Your task to perform on an android device: open app "Yahoo Mail" (install if not already installed), go to login, and select forgot password Image 0: 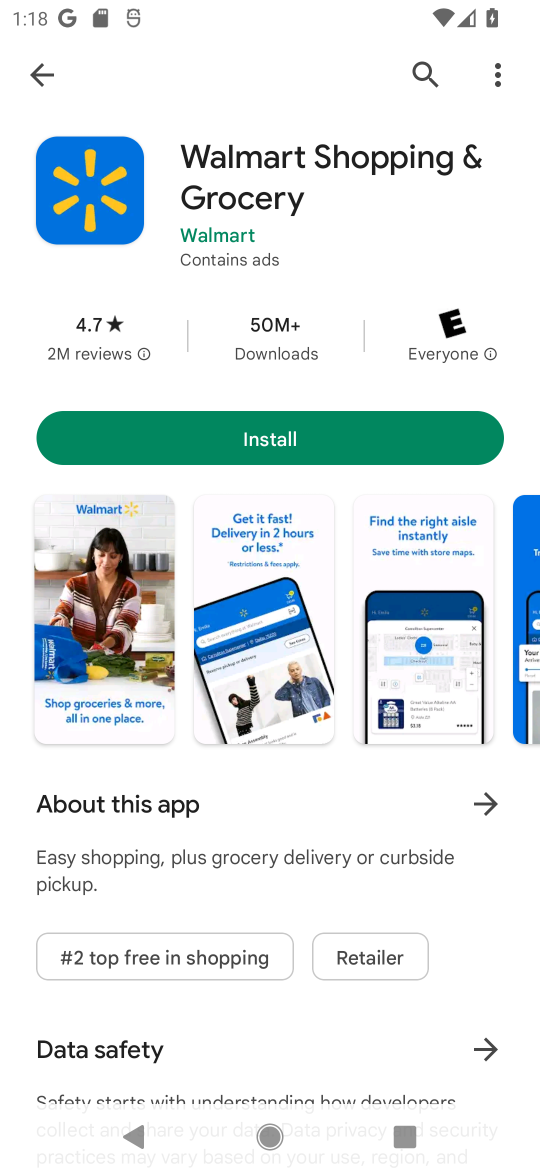
Step 0: press home button
Your task to perform on an android device: open app "Yahoo Mail" (install if not already installed), go to login, and select forgot password Image 1: 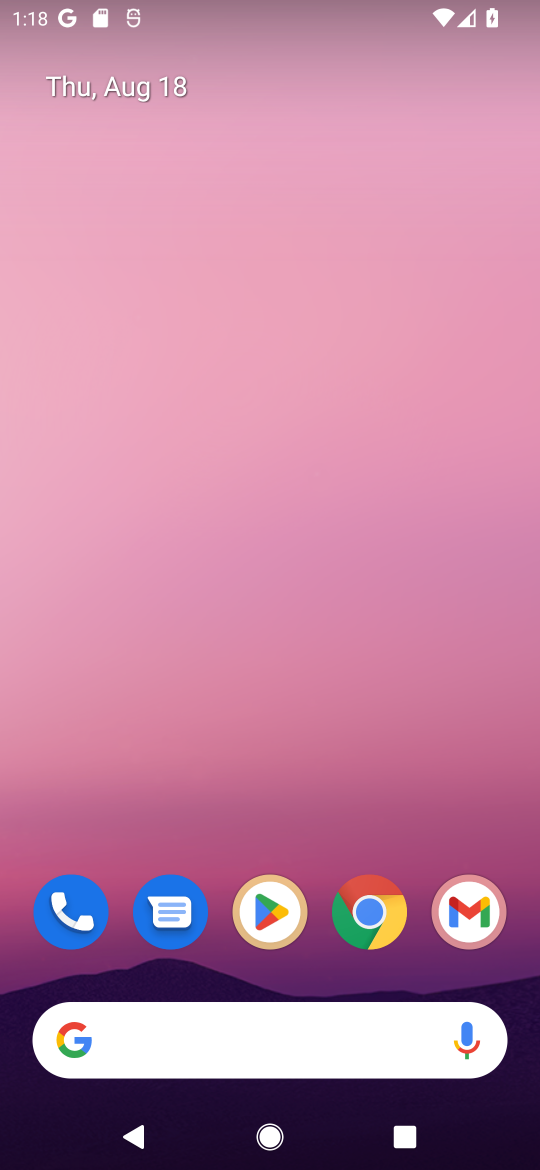
Step 1: click (274, 917)
Your task to perform on an android device: open app "Yahoo Mail" (install if not already installed), go to login, and select forgot password Image 2: 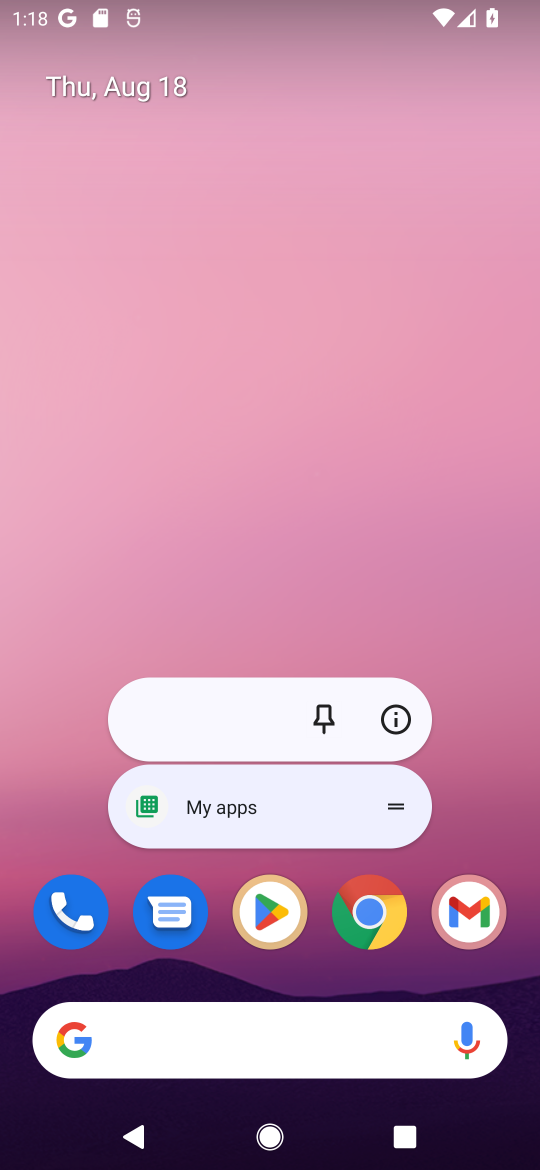
Step 2: click (271, 918)
Your task to perform on an android device: open app "Yahoo Mail" (install if not already installed), go to login, and select forgot password Image 3: 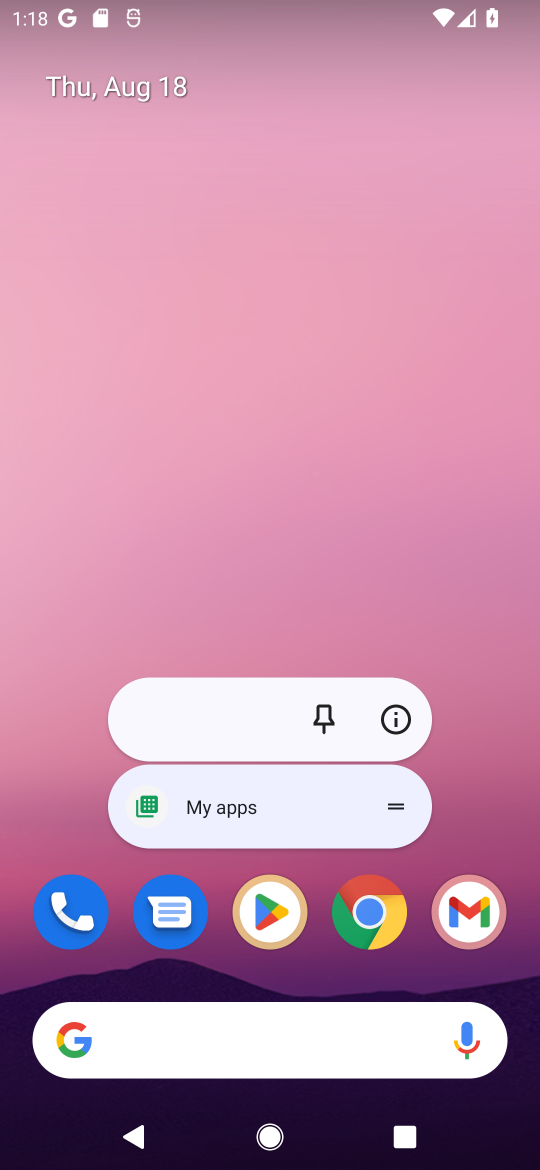
Step 3: click (265, 899)
Your task to perform on an android device: open app "Yahoo Mail" (install if not already installed), go to login, and select forgot password Image 4: 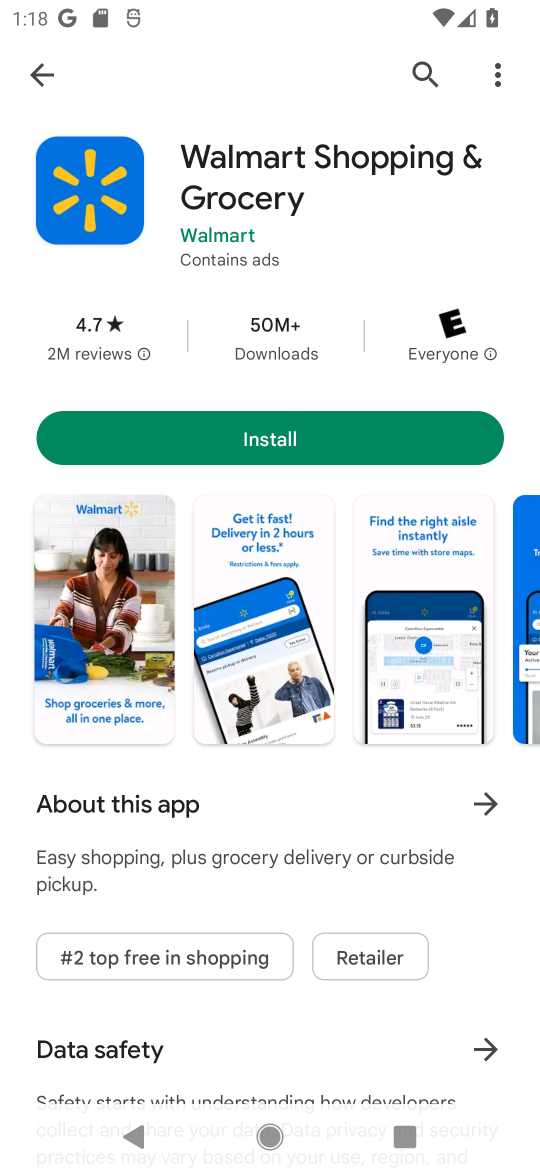
Step 4: click (417, 77)
Your task to perform on an android device: open app "Yahoo Mail" (install if not already installed), go to login, and select forgot password Image 5: 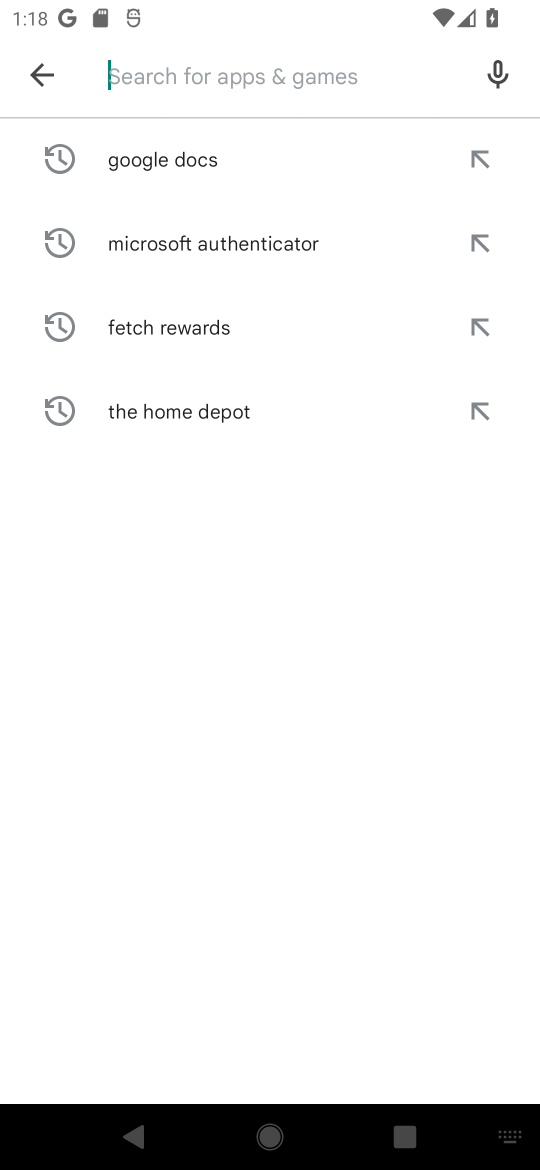
Step 5: click (234, 56)
Your task to perform on an android device: open app "Yahoo Mail" (install if not already installed), go to login, and select forgot password Image 6: 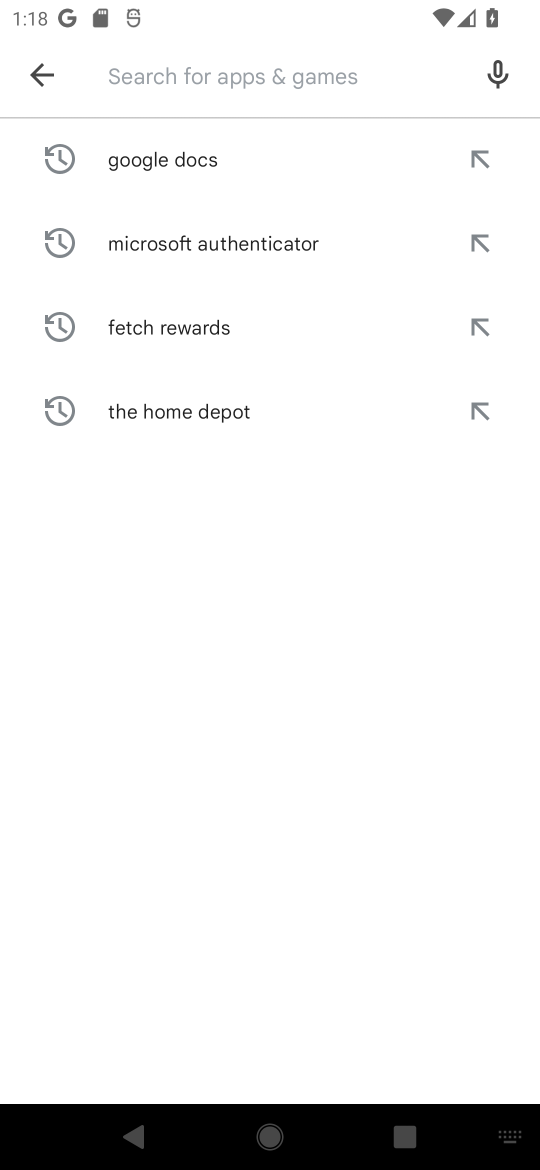
Step 6: click (220, 78)
Your task to perform on an android device: open app "Yahoo Mail" (install if not already installed), go to login, and select forgot password Image 7: 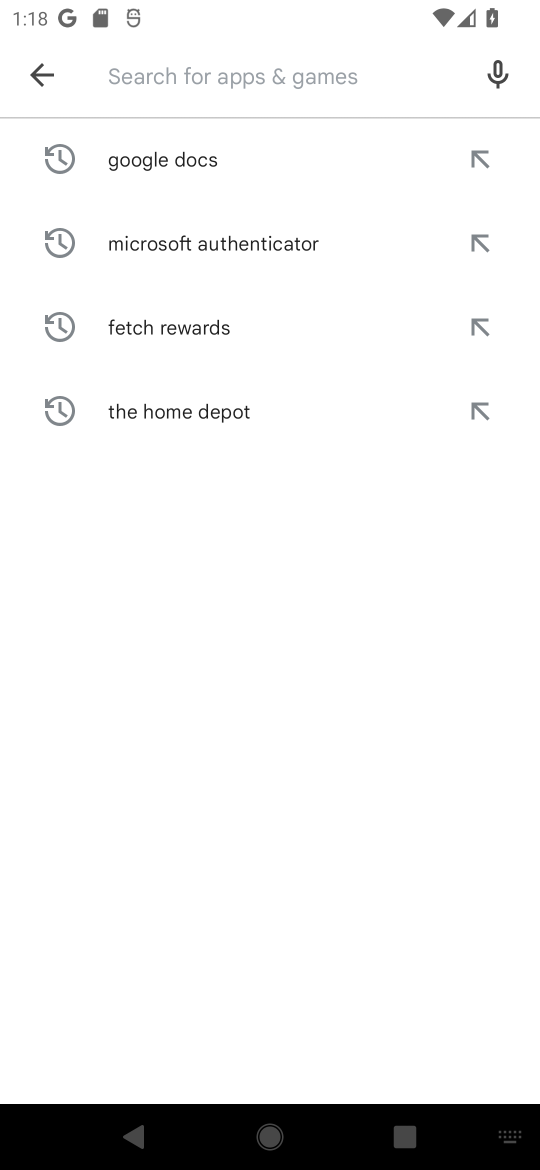
Step 7: type "Yahoo Mail"
Your task to perform on an android device: open app "Yahoo Mail" (install if not already installed), go to login, and select forgot password Image 8: 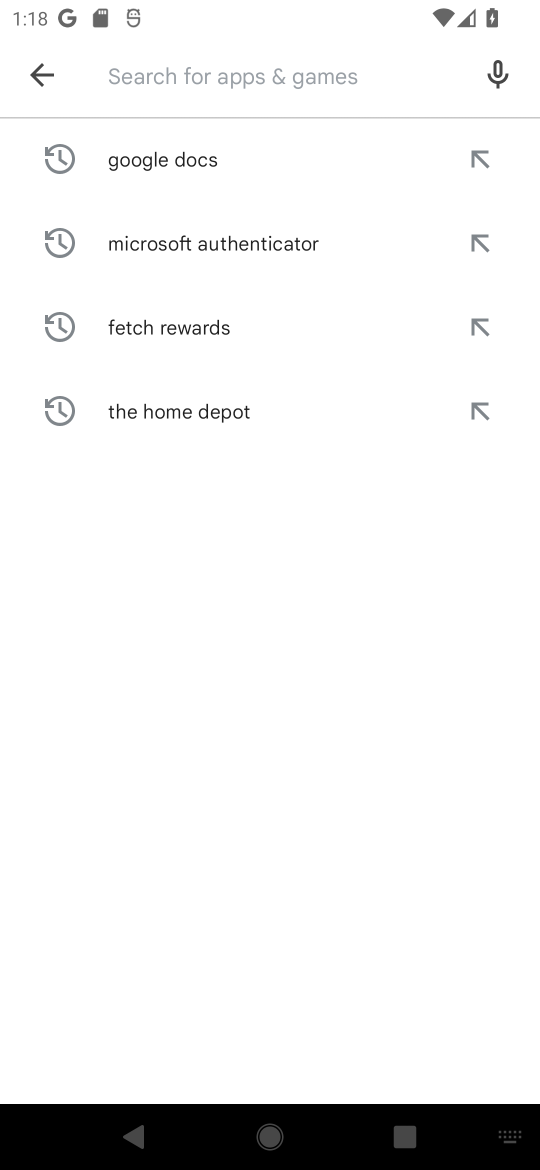
Step 8: click (277, 672)
Your task to perform on an android device: open app "Yahoo Mail" (install if not already installed), go to login, and select forgot password Image 9: 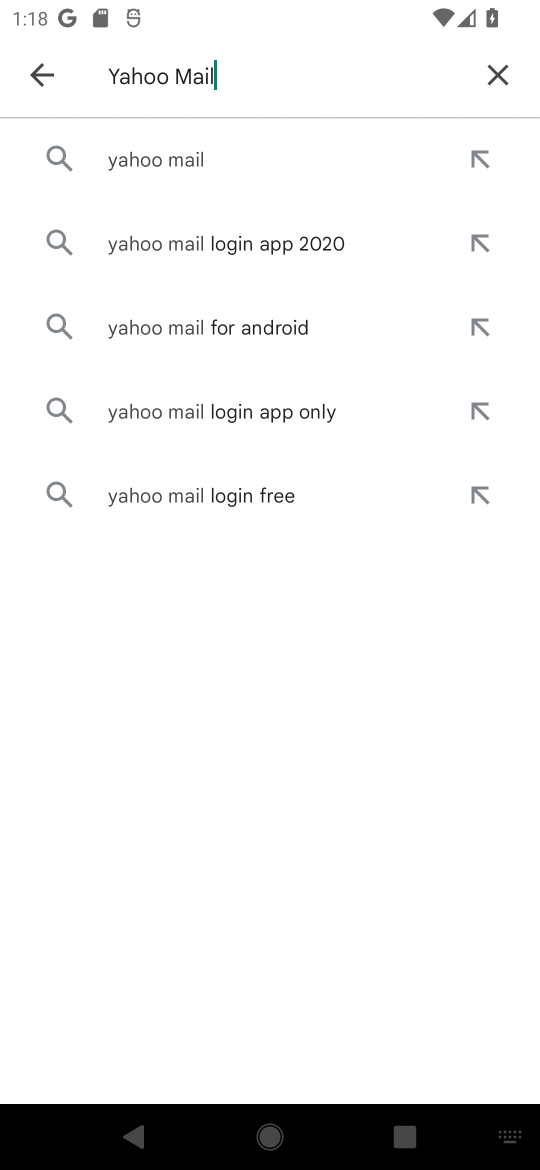
Step 9: click (136, 157)
Your task to perform on an android device: open app "Yahoo Mail" (install if not already installed), go to login, and select forgot password Image 10: 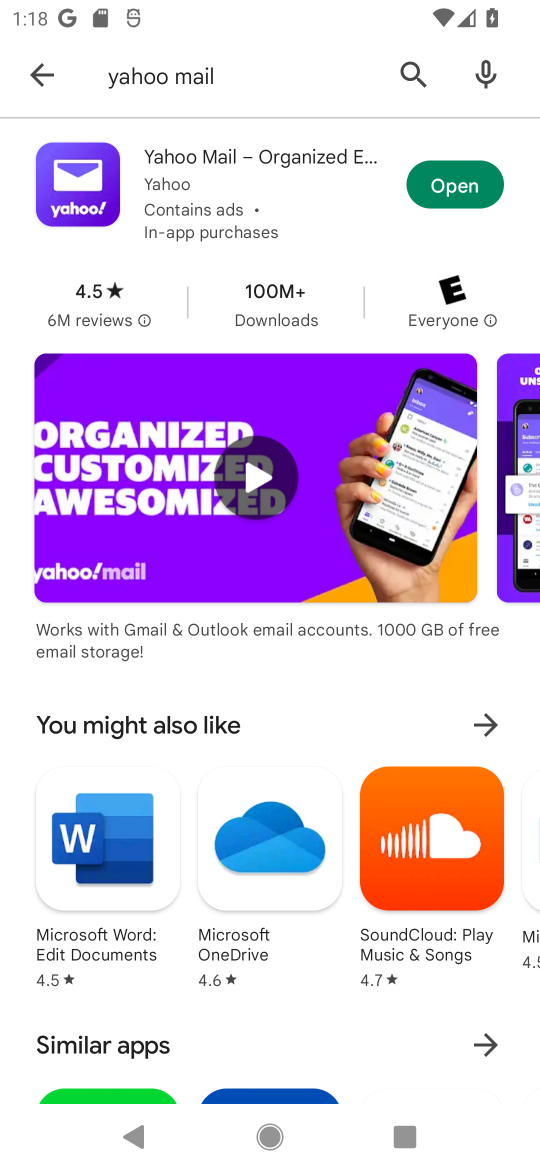
Step 10: click (468, 153)
Your task to perform on an android device: open app "Yahoo Mail" (install if not already installed), go to login, and select forgot password Image 11: 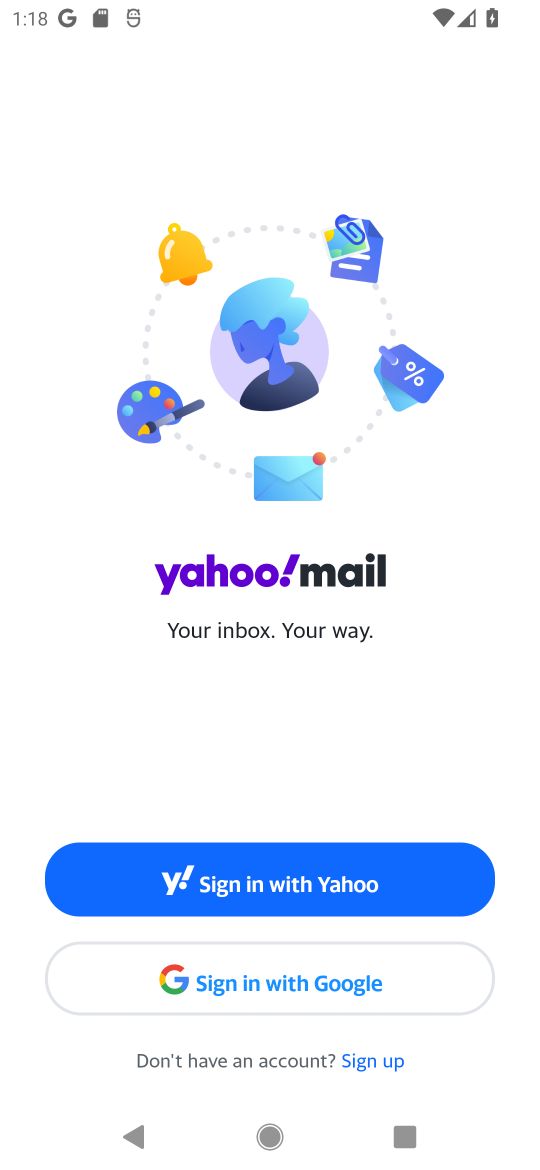
Step 11: click (261, 890)
Your task to perform on an android device: open app "Yahoo Mail" (install if not already installed), go to login, and select forgot password Image 12: 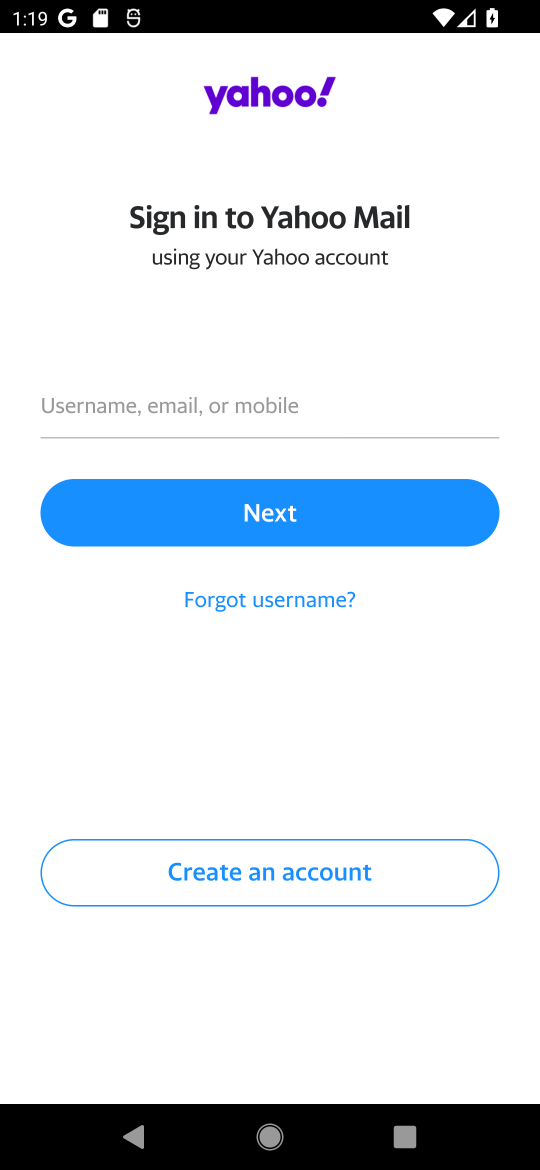
Step 12: click (247, 597)
Your task to perform on an android device: open app "Yahoo Mail" (install if not already installed), go to login, and select forgot password Image 13: 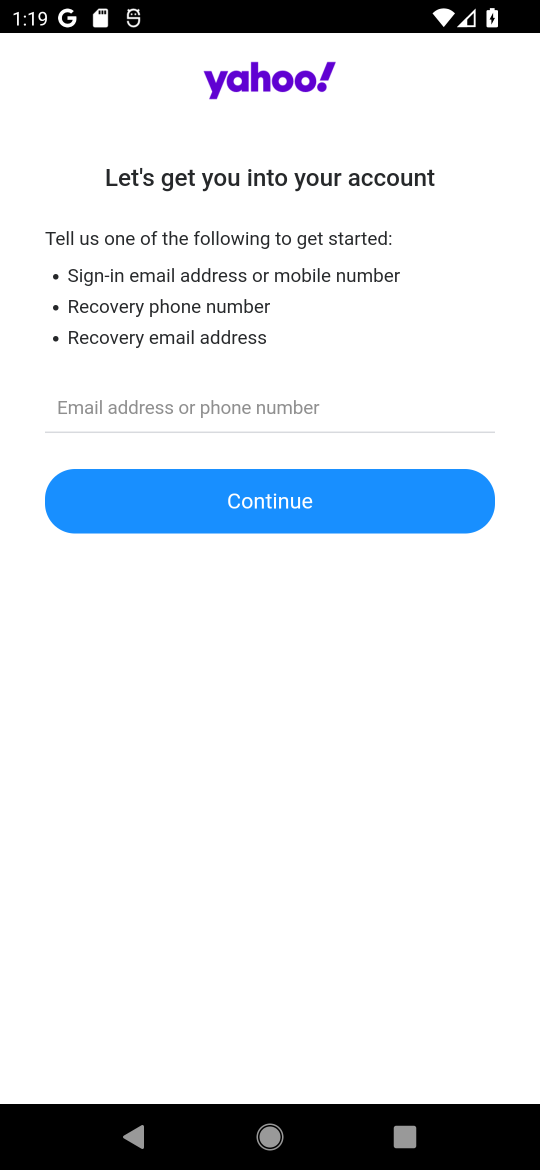
Step 13: task complete